Your task to perform on an android device: Go to network settings Image 0: 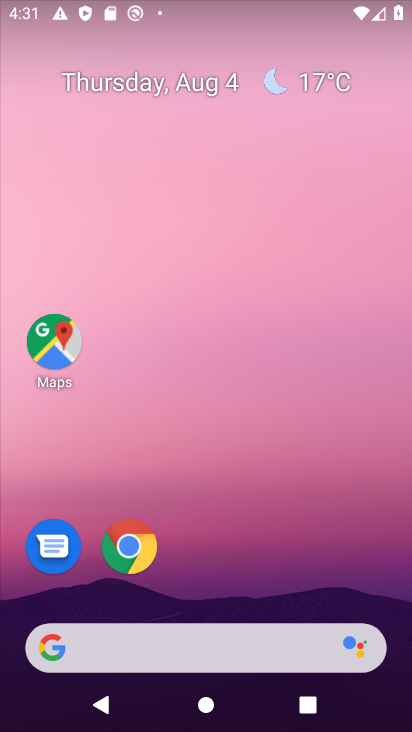
Step 0: drag from (195, 527) to (216, 272)
Your task to perform on an android device: Go to network settings Image 1: 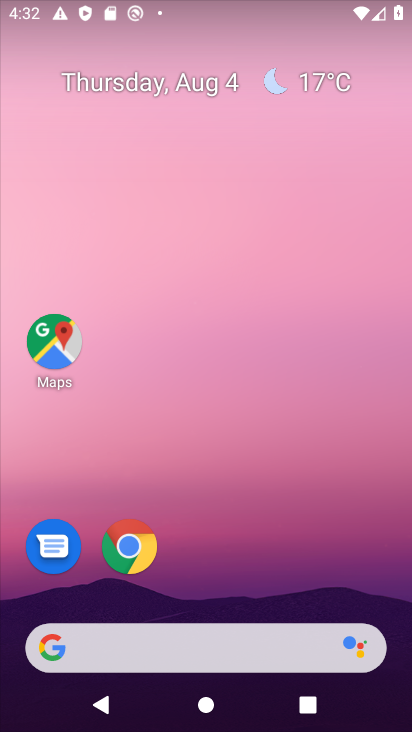
Step 1: drag from (225, 508) to (266, 27)
Your task to perform on an android device: Go to network settings Image 2: 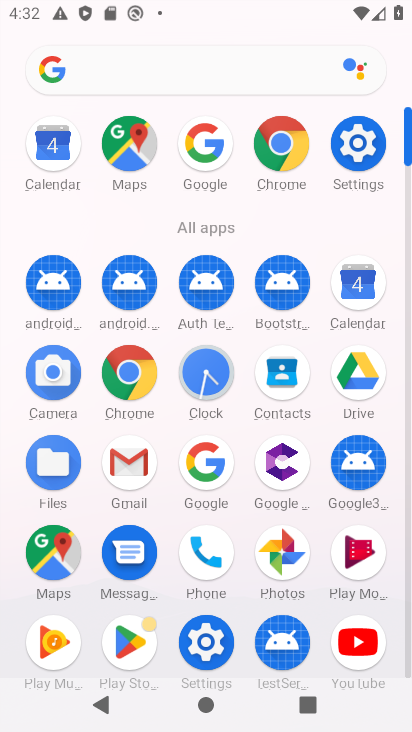
Step 2: click (354, 155)
Your task to perform on an android device: Go to network settings Image 3: 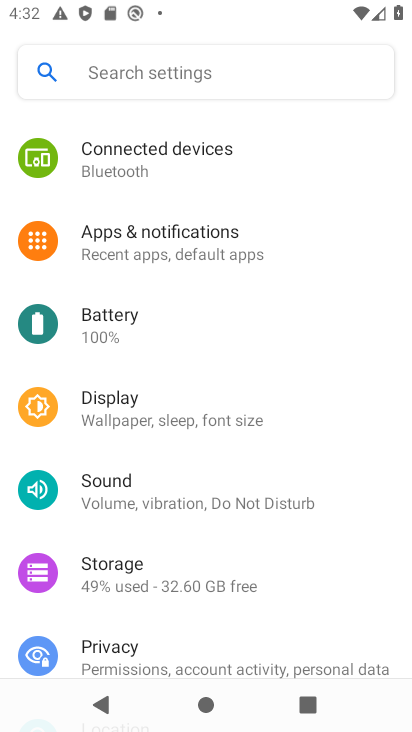
Step 3: drag from (231, 524) to (185, 680)
Your task to perform on an android device: Go to network settings Image 4: 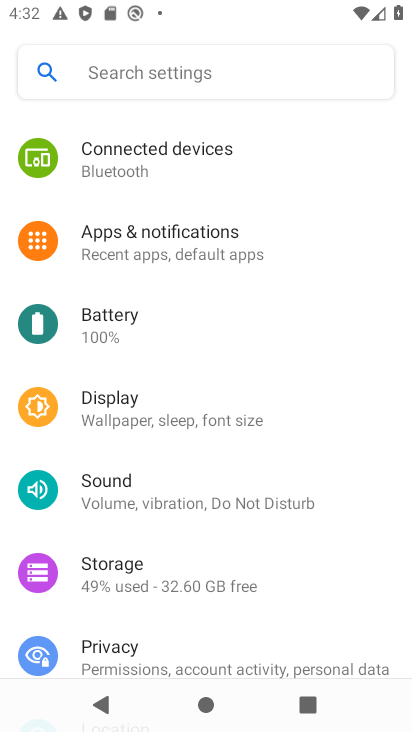
Step 4: drag from (237, 325) to (245, 457)
Your task to perform on an android device: Go to network settings Image 5: 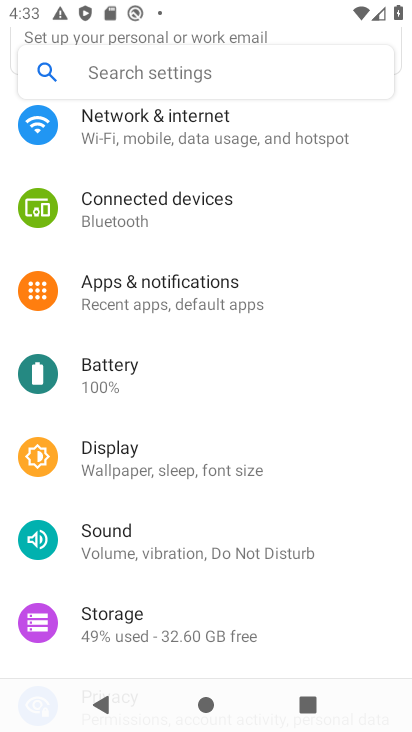
Step 5: drag from (202, 227) to (231, 377)
Your task to perform on an android device: Go to network settings Image 6: 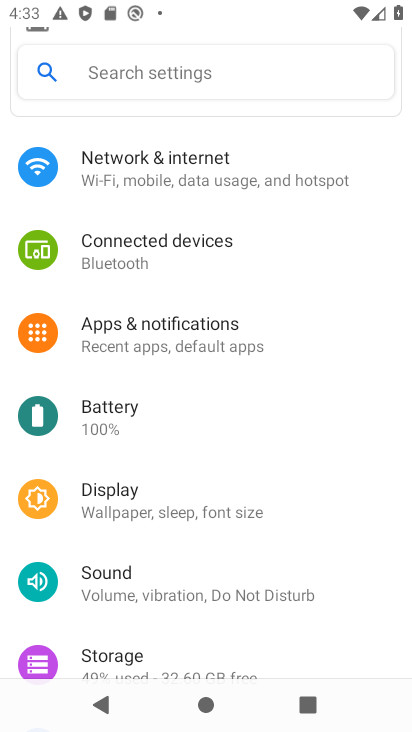
Step 6: drag from (241, 372) to (244, 456)
Your task to perform on an android device: Go to network settings Image 7: 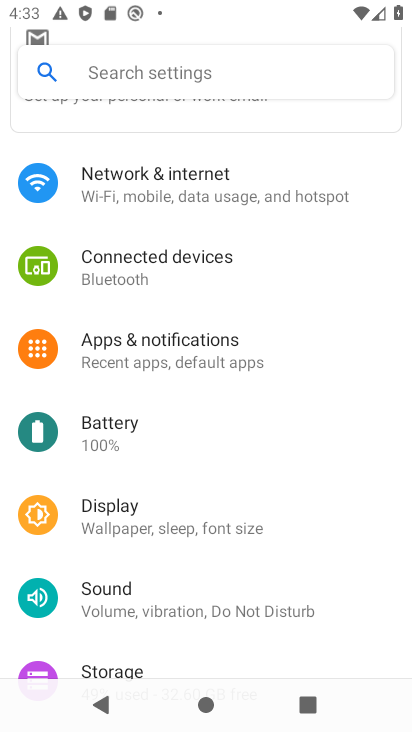
Step 7: click (264, 186)
Your task to perform on an android device: Go to network settings Image 8: 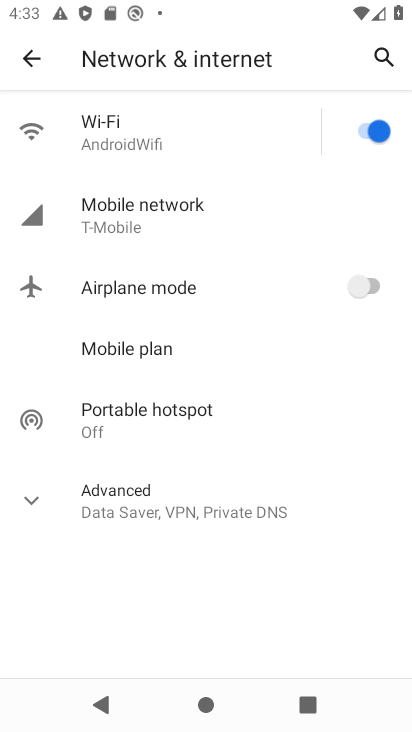
Step 8: task complete